Your task to perform on an android device: Go to accessibility settings Image 0: 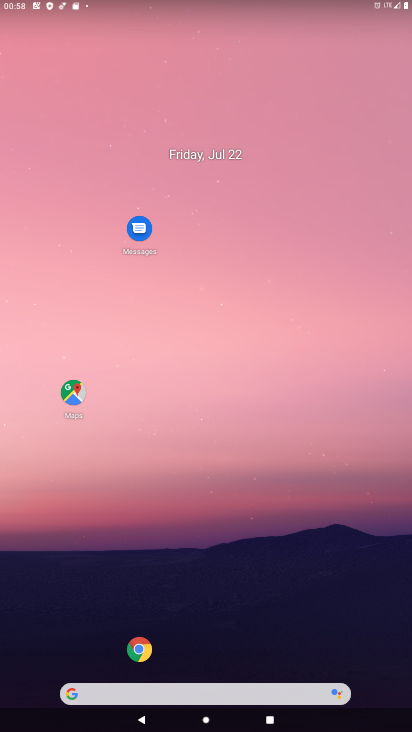
Step 0: drag from (281, 225) to (361, 17)
Your task to perform on an android device: Go to accessibility settings Image 1: 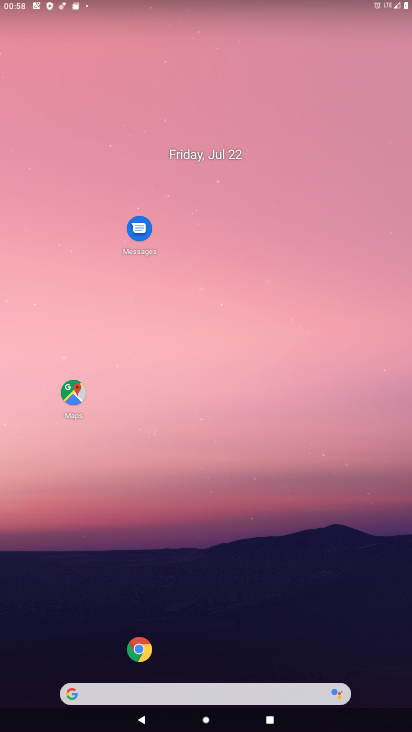
Step 1: drag from (31, 691) to (212, 86)
Your task to perform on an android device: Go to accessibility settings Image 2: 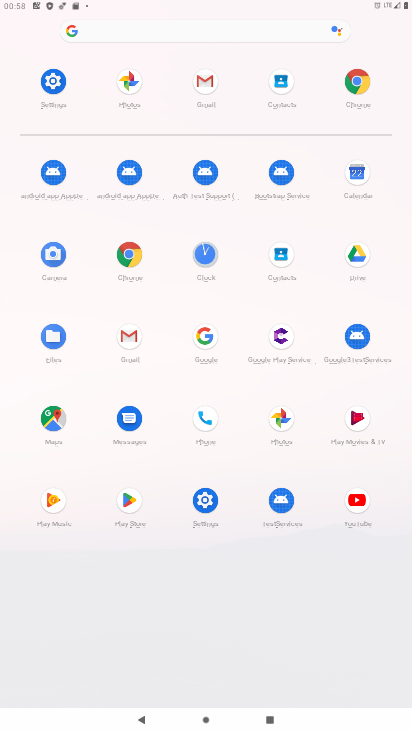
Step 2: click (185, 501)
Your task to perform on an android device: Go to accessibility settings Image 3: 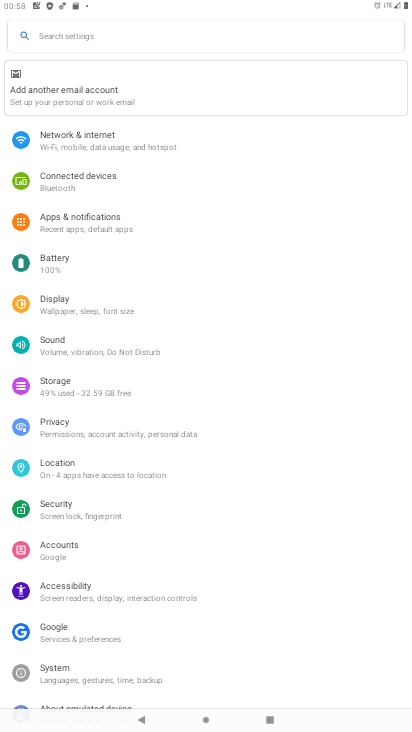
Step 3: click (56, 587)
Your task to perform on an android device: Go to accessibility settings Image 4: 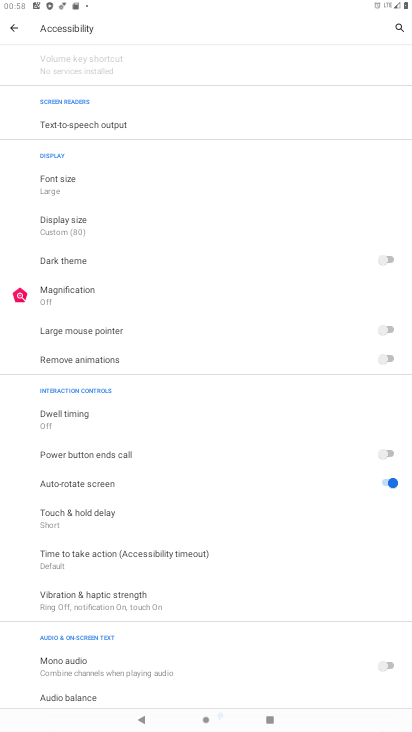
Step 4: task complete